Your task to perform on an android device: Open internet settings Image 0: 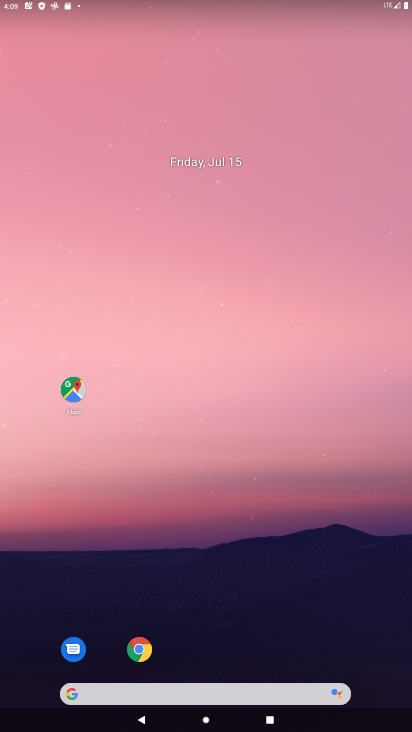
Step 0: drag from (334, 557) to (298, 48)
Your task to perform on an android device: Open internet settings Image 1: 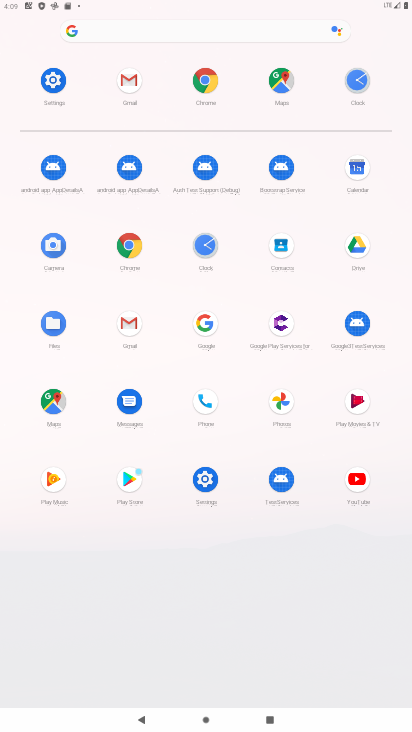
Step 1: click (52, 75)
Your task to perform on an android device: Open internet settings Image 2: 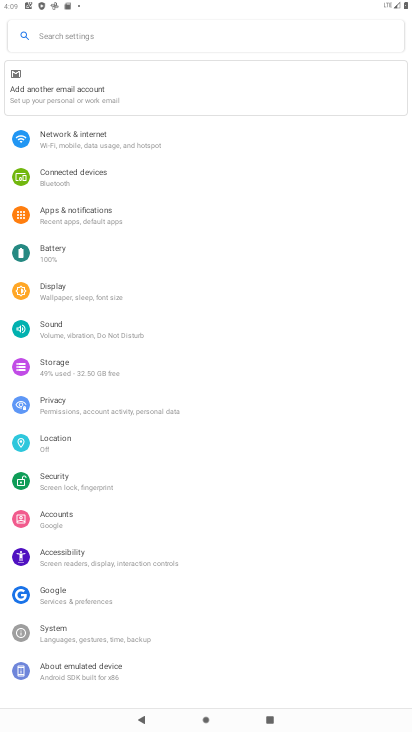
Step 2: click (82, 128)
Your task to perform on an android device: Open internet settings Image 3: 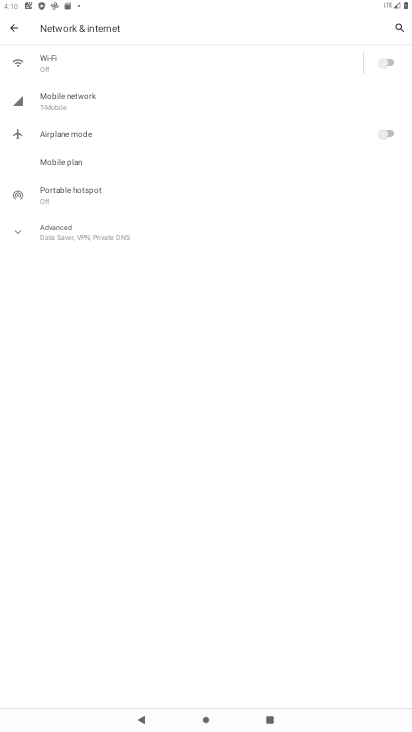
Step 3: click (83, 234)
Your task to perform on an android device: Open internet settings Image 4: 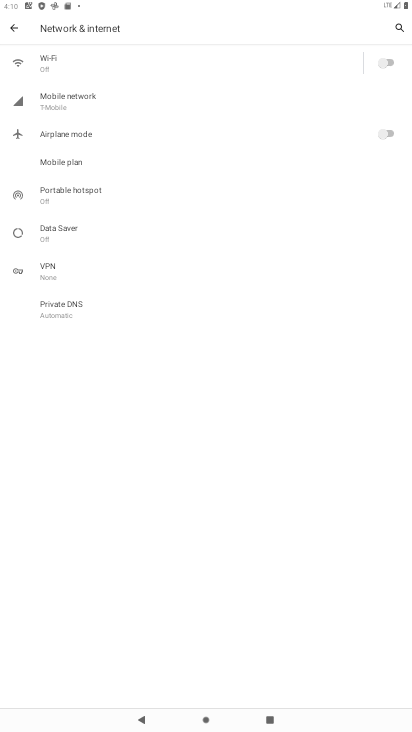
Step 4: task complete